Your task to perform on an android device: check google app version Image 0: 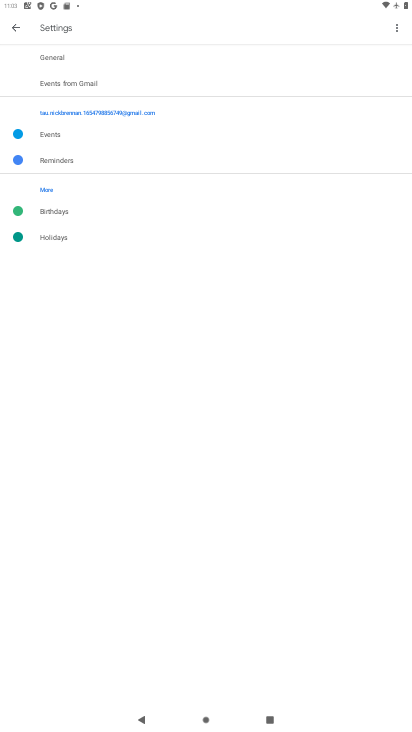
Step 0: press home button
Your task to perform on an android device: check google app version Image 1: 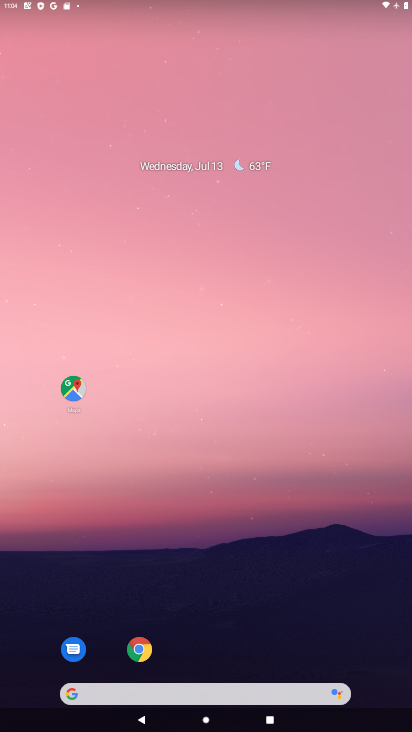
Step 1: drag from (204, 584) to (200, 234)
Your task to perform on an android device: check google app version Image 2: 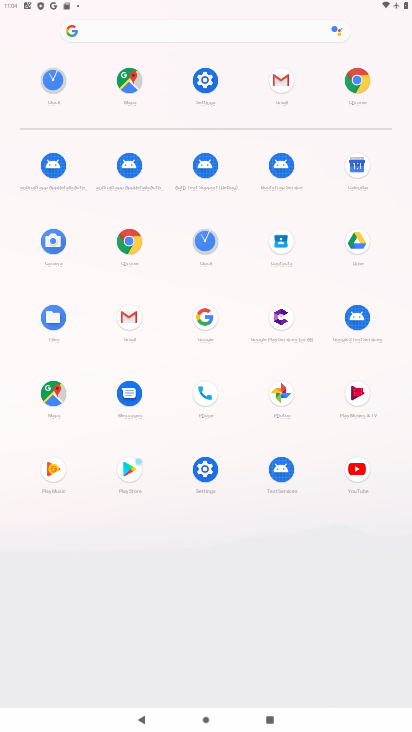
Step 2: click (206, 320)
Your task to perform on an android device: check google app version Image 3: 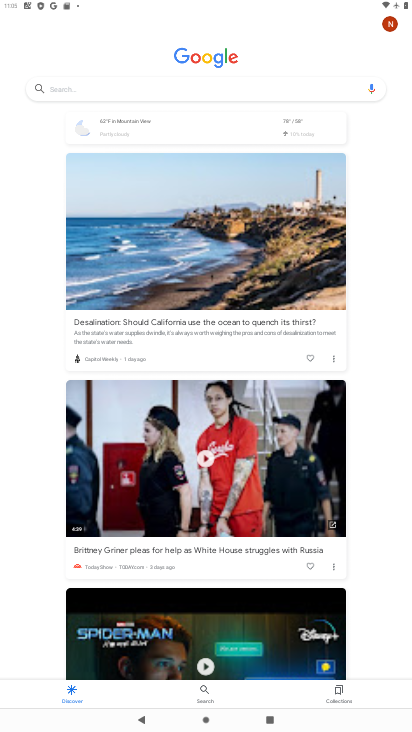
Step 3: click (380, 16)
Your task to perform on an android device: check google app version Image 4: 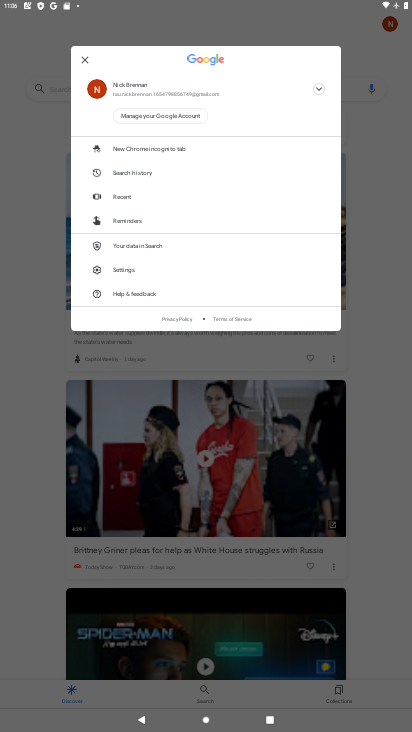
Step 4: click (128, 274)
Your task to perform on an android device: check google app version Image 5: 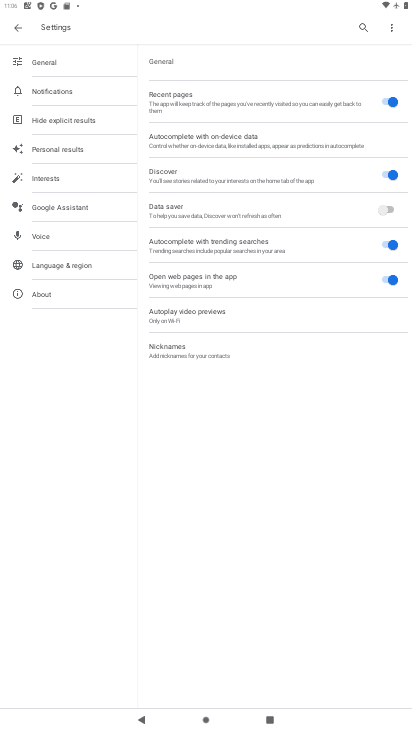
Step 5: click (46, 287)
Your task to perform on an android device: check google app version Image 6: 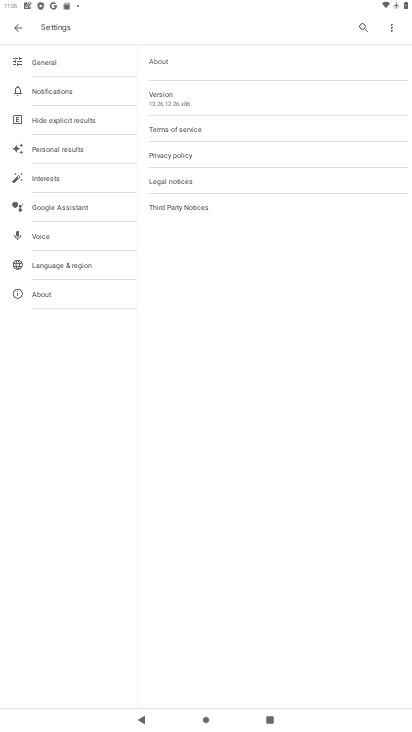
Step 6: task complete